Your task to perform on an android device: clear history in the chrome app Image 0: 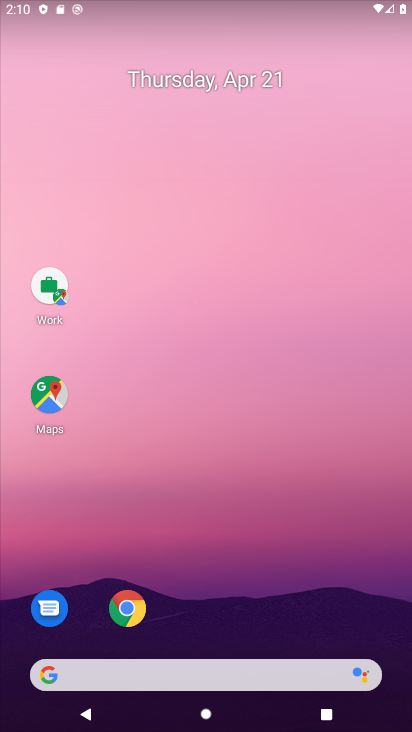
Step 0: click (54, 396)
Your task to perform on an android device: clear history in the chrome app Image 1: 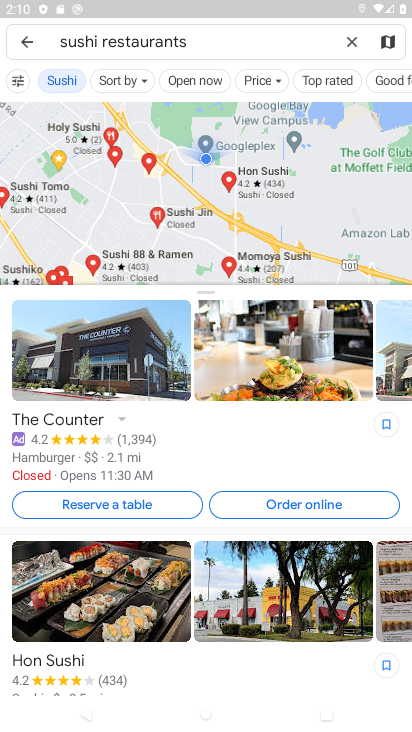
Step 1: press home button
Your task to perform on an android device: clear history in the chrome app Image 2: 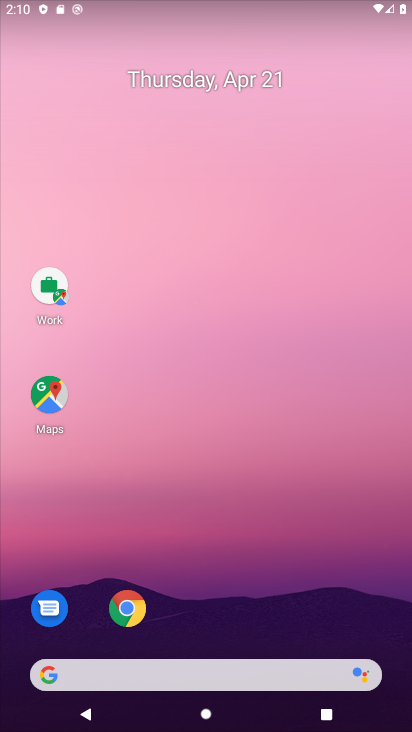
Step 2: click (135, 614)
Your task to perform on an android device: clear history in the chrome app Image 3: 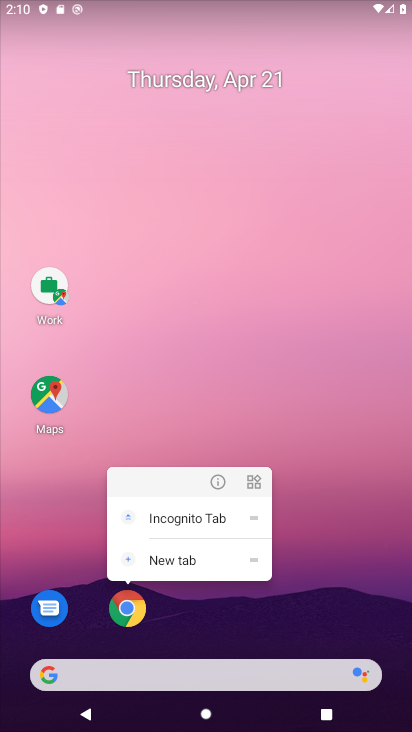
Step 3: click (117, 619)
Your task to perform on an android device: clear history in the chrome app Image 4: 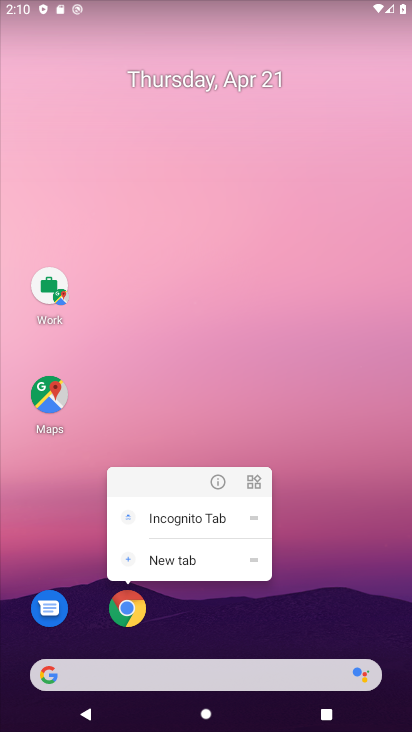
Step 4: click (121, 628)
Your task to perform on an android device: clear history in the chrome app Image 5: 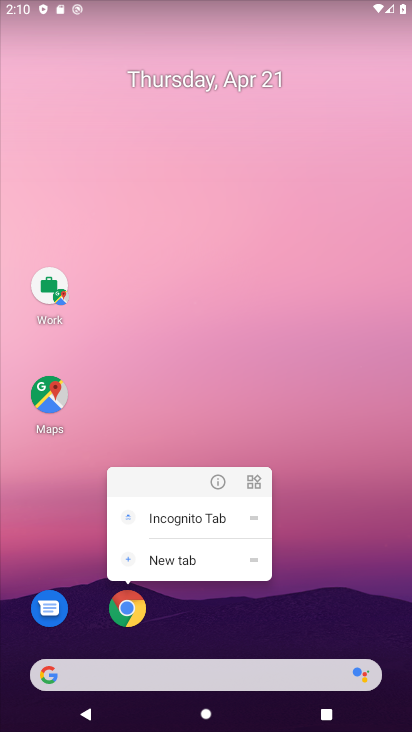
Step 5: click (121, 628)
Your task to perform on an android device: clear history in the chrome app Image 6: 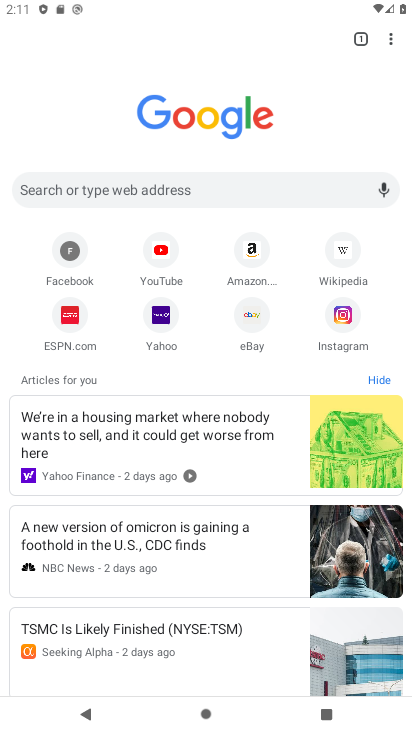
Step 6: click (389, 40)
Your task to perform on an android device: clear history in the chrome app Image 7: 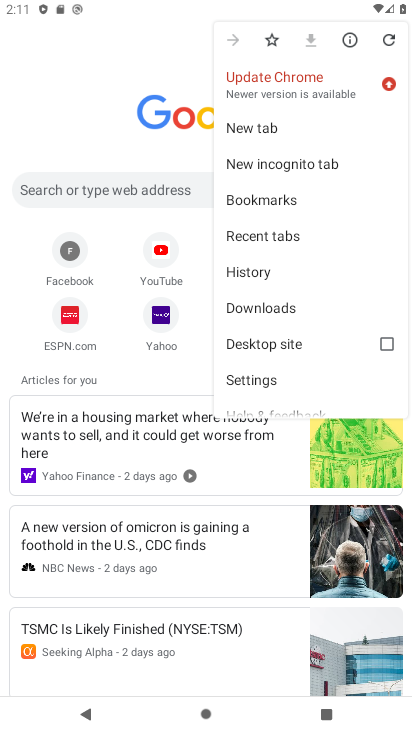
Step 7: click (244, 272)
Your task to perform on an android device: clear history in the chrome app Image 8: 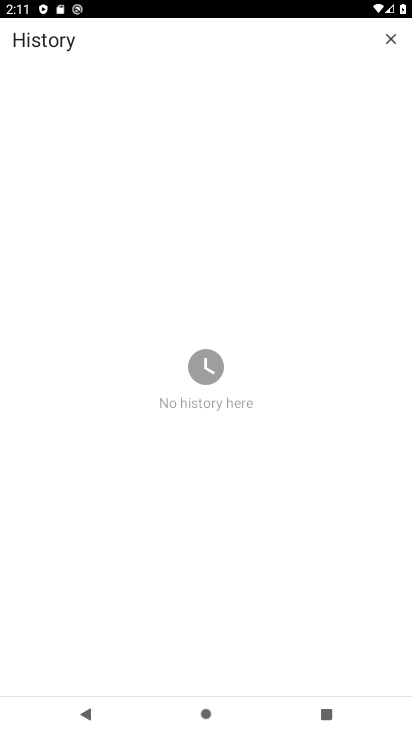
Step 8: task complete